Your task to perform on an android device: Open calendar and show me the first week of next month Image 0: 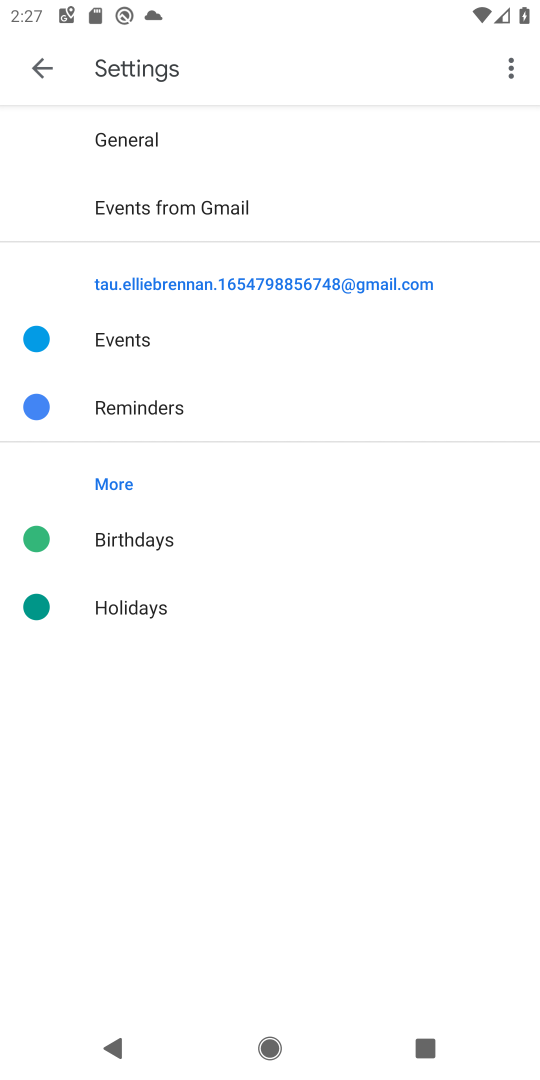
Step 0: press home button
Your task to perform on an android device: Open calendar and show me the first week of next month Image 1: 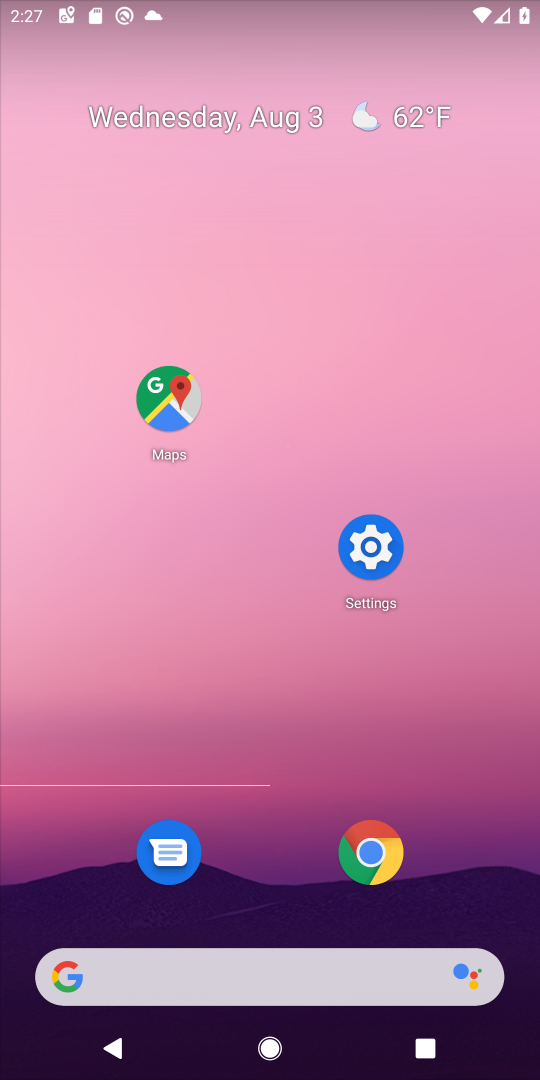
Step 1: drag from (279, 885) to (329, 128)
Your task to perform on an android device: Open calendar and show me the first week of next month Image 2: 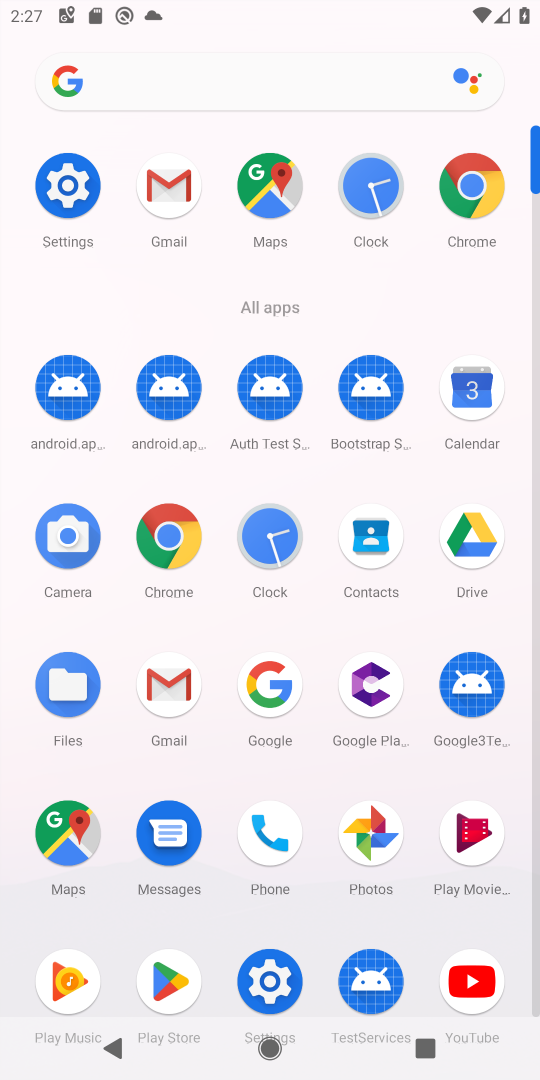
Step 2: click (480, 397)
Your task to perform on an android device: Open calendar and show me the first week of next month Image 3: 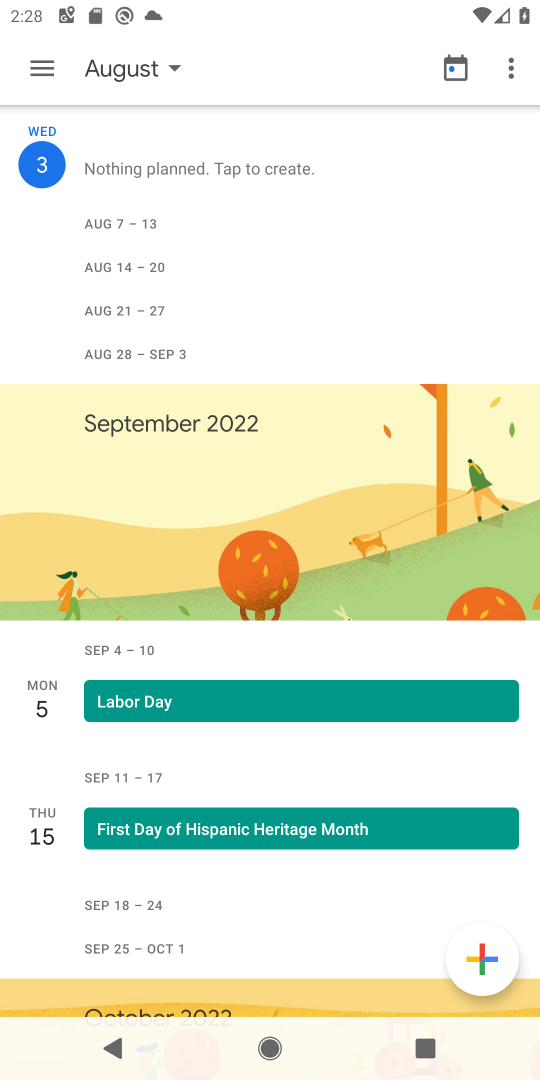
Step 3: click (134, 66)
Your task to perform on an android device: Open calendar and show me the first week of next month Image 4: 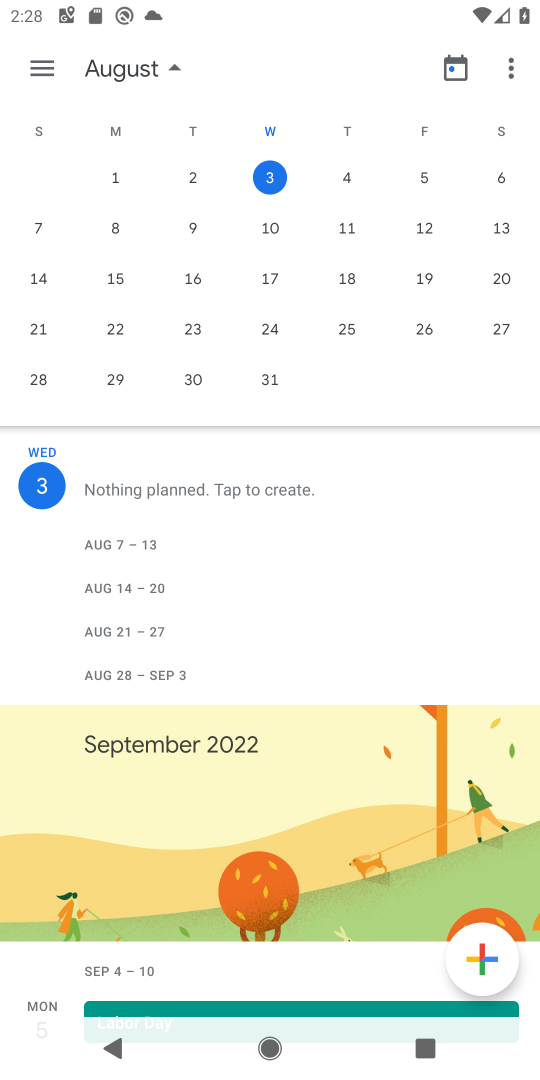
Step 4: drag from (478, 279) to (37, 314)
Your task to perform on an android device: Open calendar and show me the first week of next month Image 5: 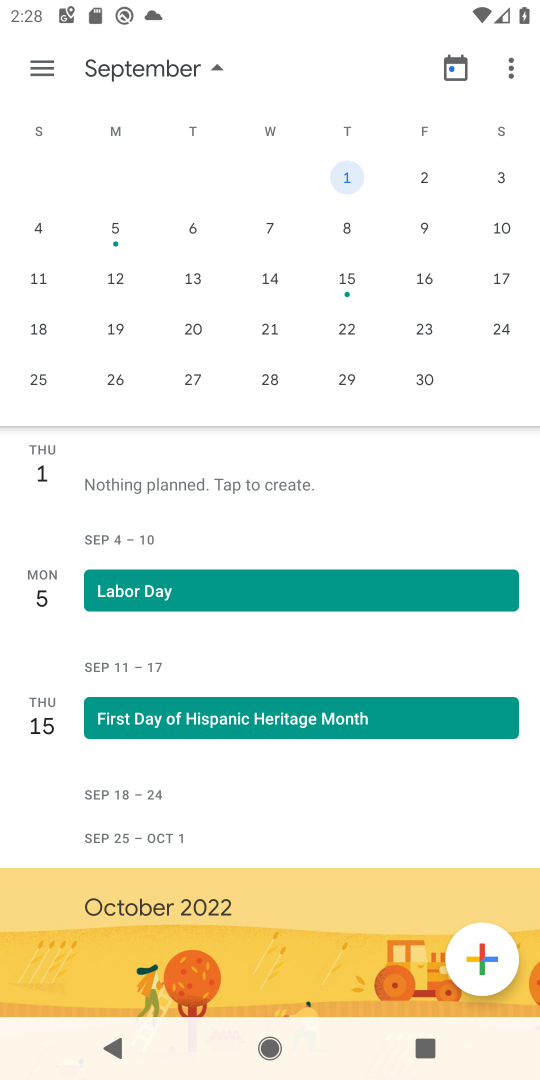
Step 5: click (347, 177)
Your task to perform on an android device: Open calendar and show me the first week of next month Image 6: 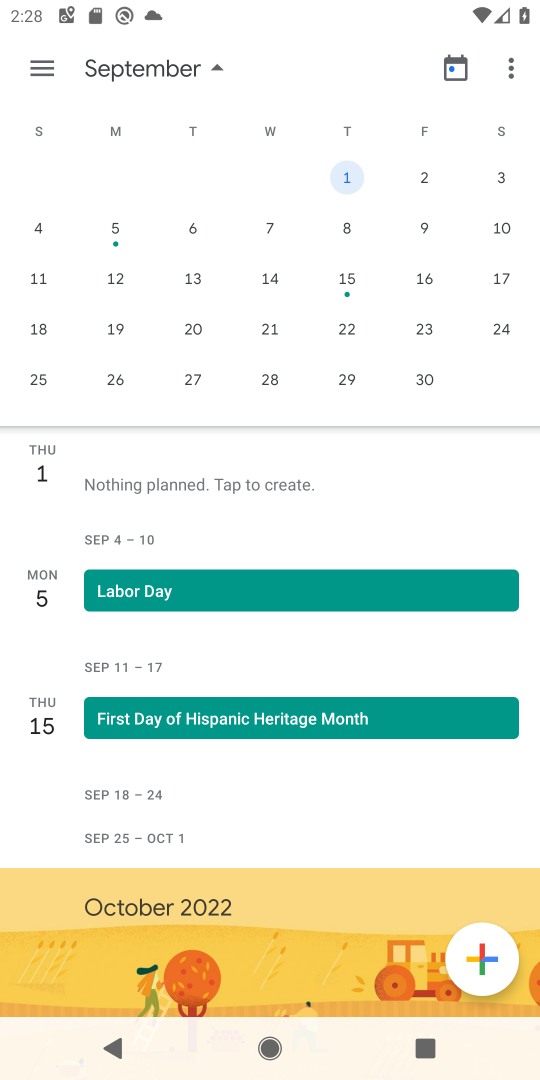
Step 6: click (50, 66)
Your task to perform on an android device: Open calendar and show me the first week of next month Image 7: 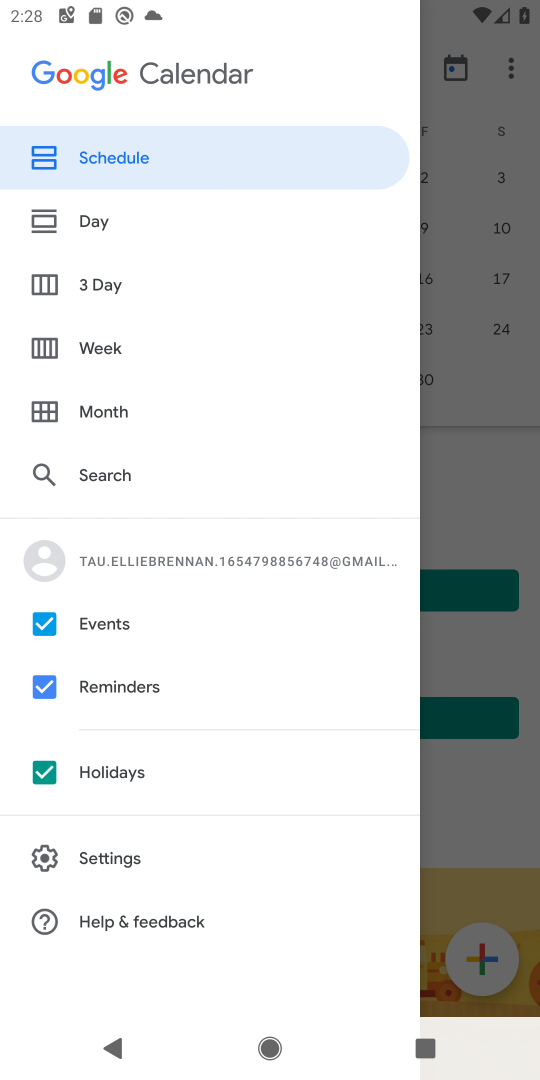
Step 7: click (102, 348)
Your task to perform on an android device: Open calendar and show me the first week of next month Image 8: 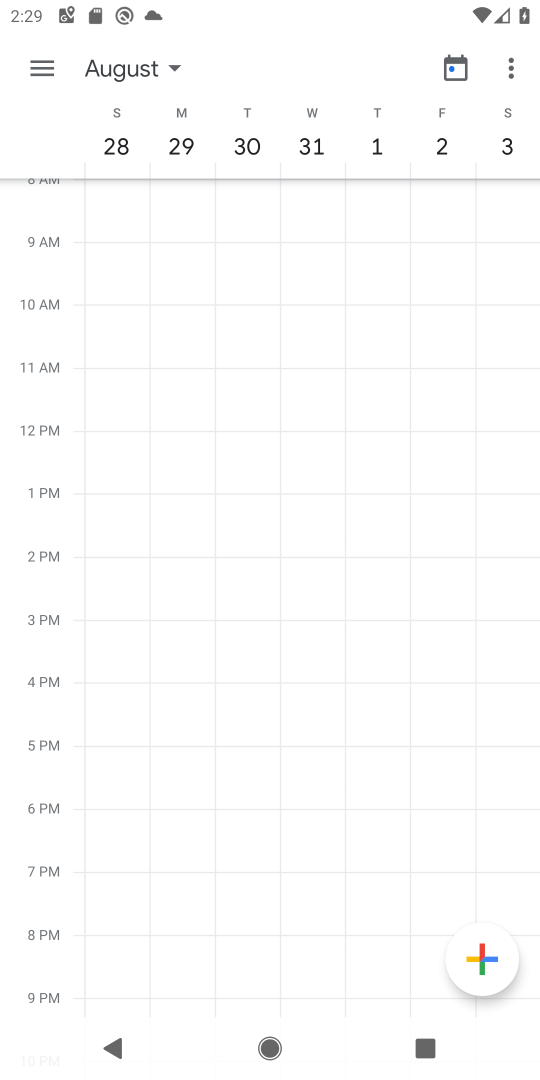
Step 8: task complete